Your task to perform on an android device: What's on my calendar today? Image 0: 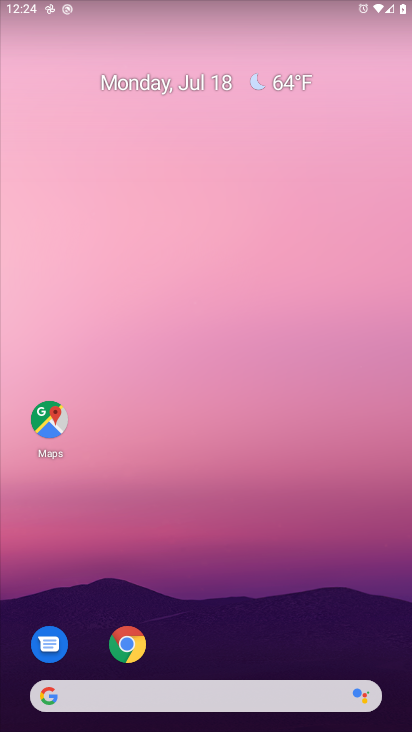
Step 0: press home button
Your task to perform on an android device: What's on my calendar today? Image 1: 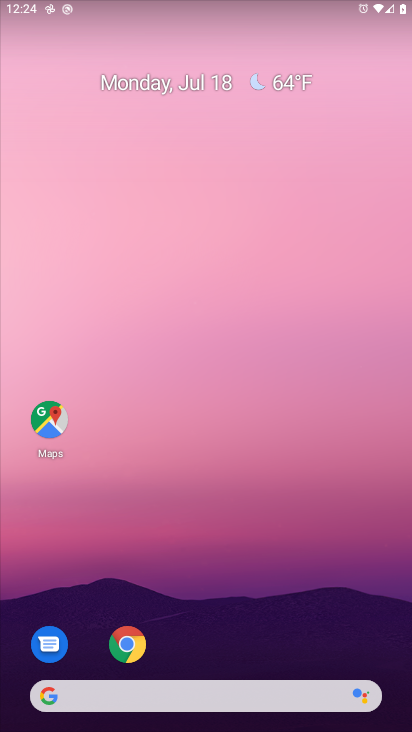
Step 1: drag from (312, 632) to (297, 53)
Your task to perform on an android device: What's on my calendar today? Image 2: 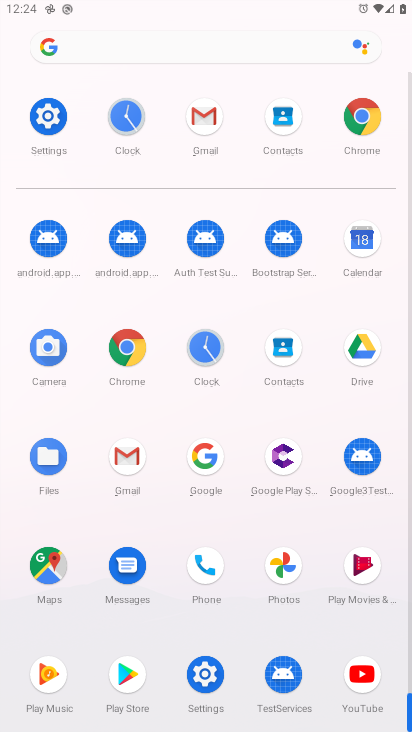
Step 2: click (366, 238)
Your task to perform on an android device: What's on my calendar today? Image 3: 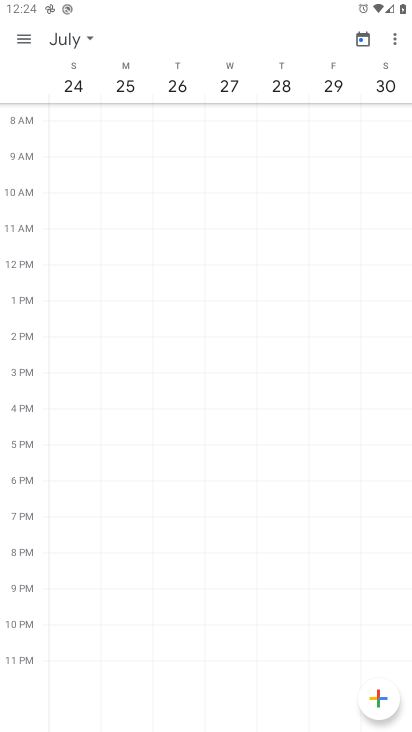
Step 3: drag from (76, 82) to (399, 116)
Your task to perform on an android device: What's on my calendar today? Image 4: 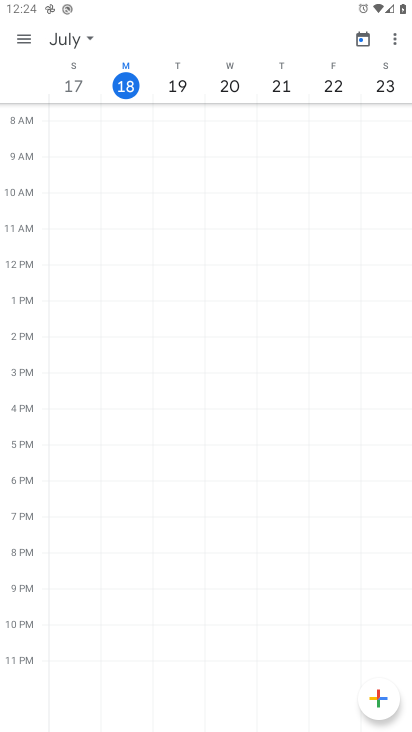
Step 4: click (121, 82)
Your task to perform on an android device: What's on my calendar today? Image 5: 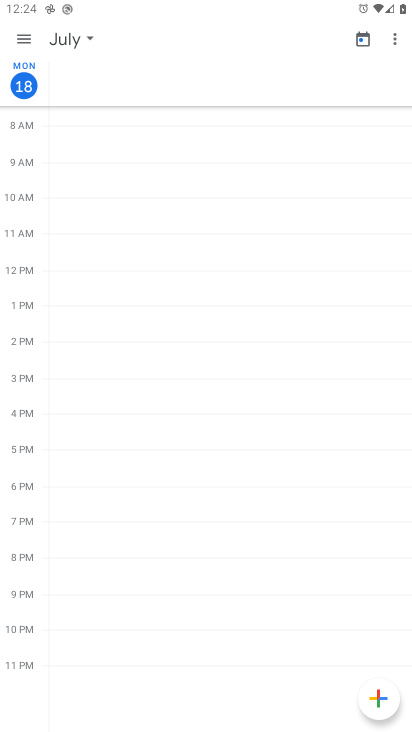
Step 5: task complete